Your task to perform on an android device: check battery use Image 0: 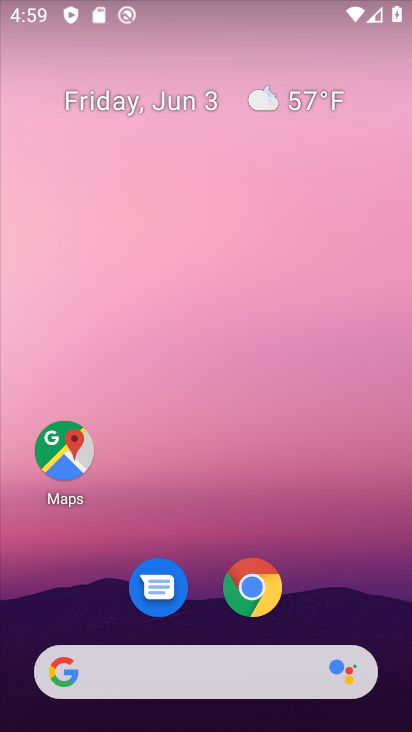
Step 0: drag from (253, 11) to (169, 697)
Your task to perform on an android device: check battery use Image 1: 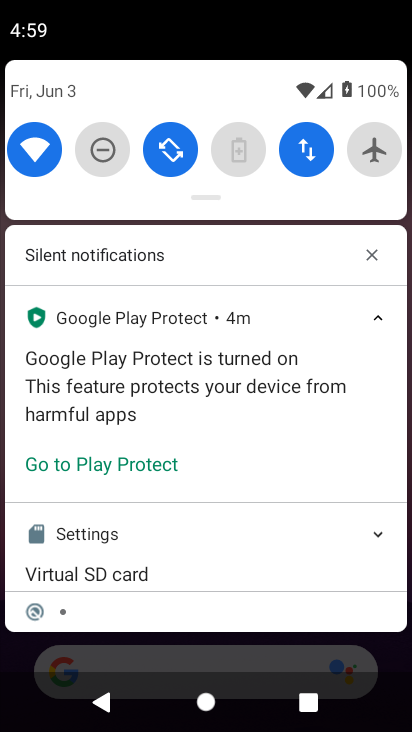
Step 1: click (240, 149)
Your task to perform on an android device: check battery use Image 2: 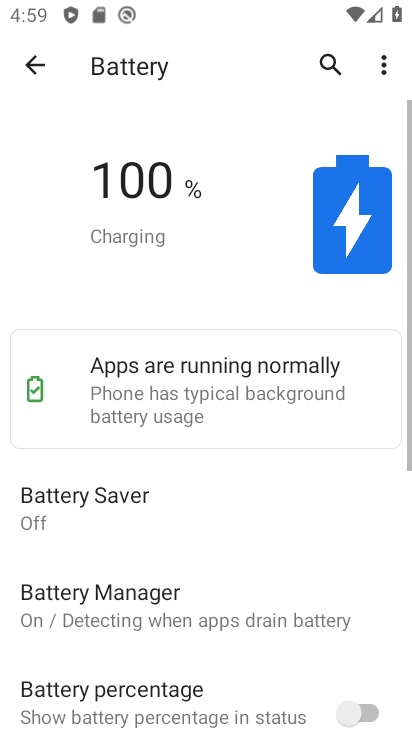
Step 2: task complete